Your task to perform on an android device: turn on data saver in the chrome app Image 0: 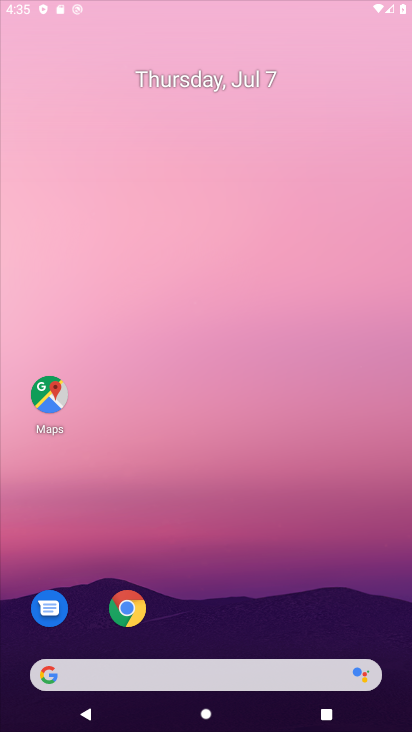
Step 0: press home button
Your task to perform on an android device: turn on data saver in the chrome app Image 1: 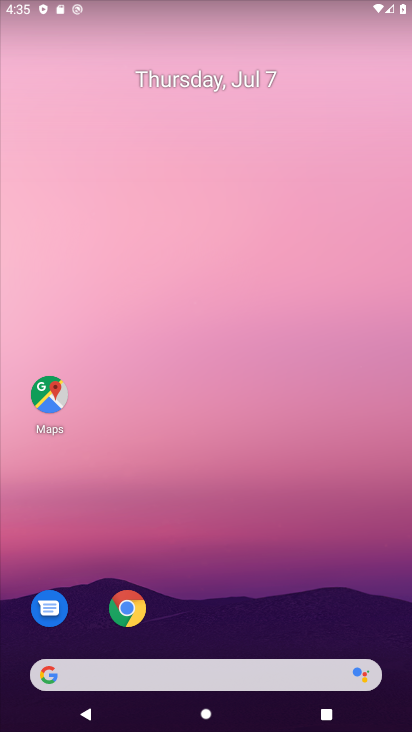
Step 1: press home button
Your task to perform on an android device: turn on data saver in the chrome app Image 2: 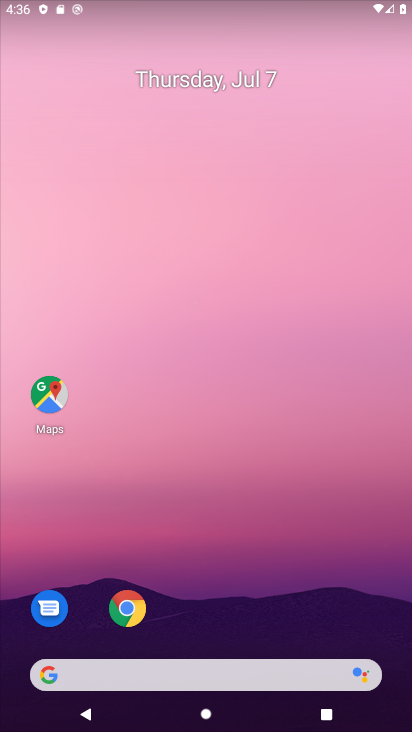
Step 2: click (126, 603)
Your task to perform on an android device: turn on data saver in the chrome app Image 3: 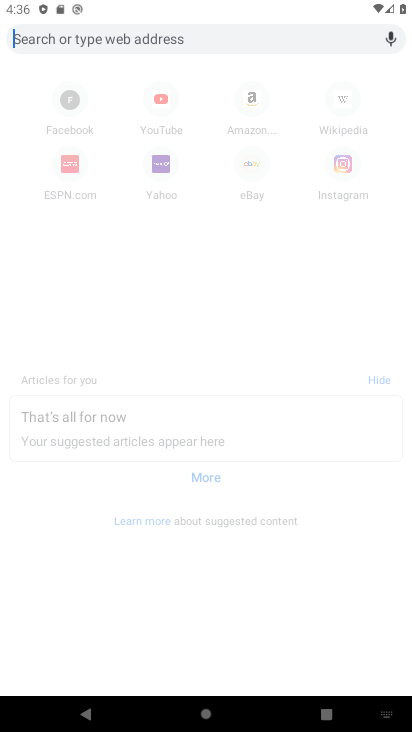
Step 3: click (249, 213)
Your task to perform on an android device: turn on data saver in the chrome app Image 4: 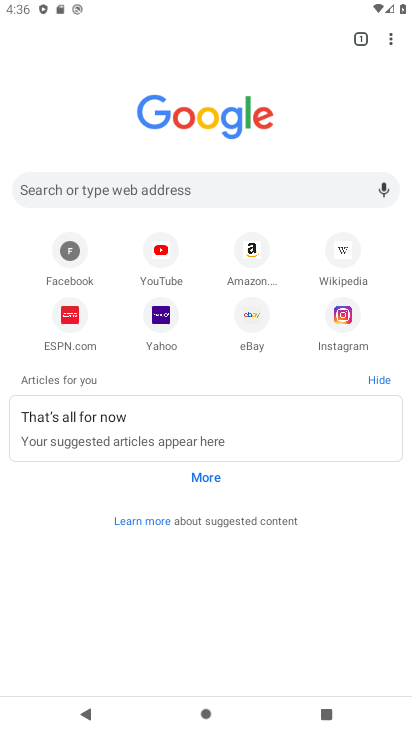
Step 4: click (390, 34)
Your task to perform on an android device: turn on data saver in the chrome app Image 5: 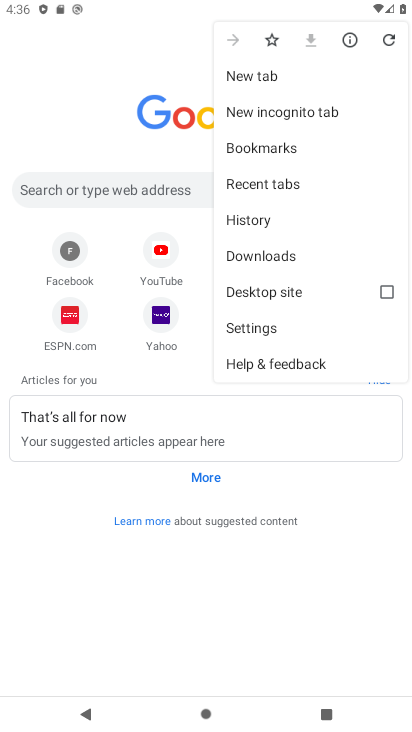
Step 5: click (276, 327)
Your task to perform on an android device: turn on data saver in the chrome app Image 6: 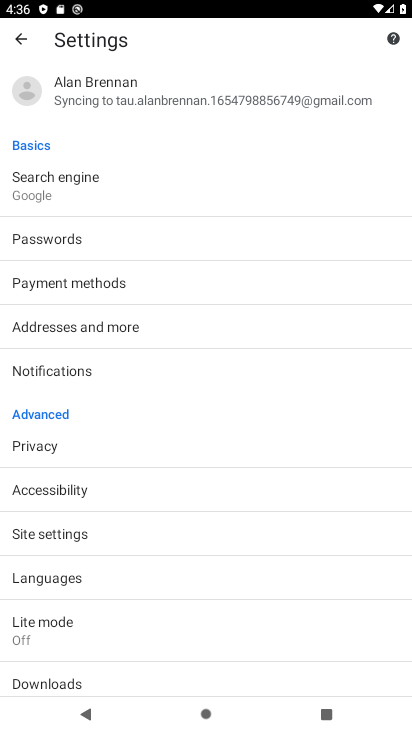
Step 6: click (89, 632)
Your task to perform on an android device: turn on data saver in the chrome app Image 7: 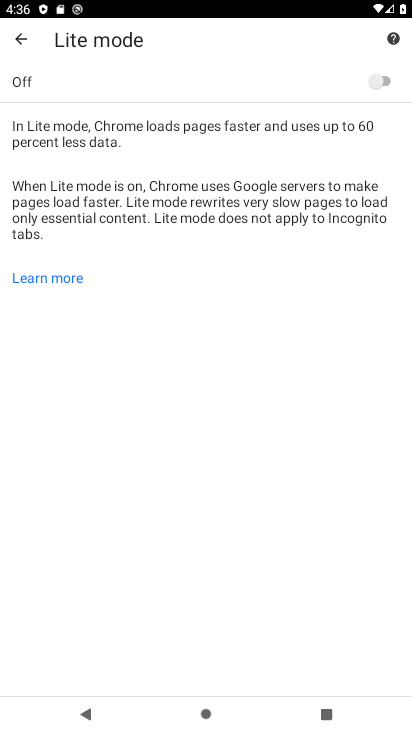
Step 7: click (384, 77)
Your task to perform on an android device: turn on data saver in the chrome app Image 8: 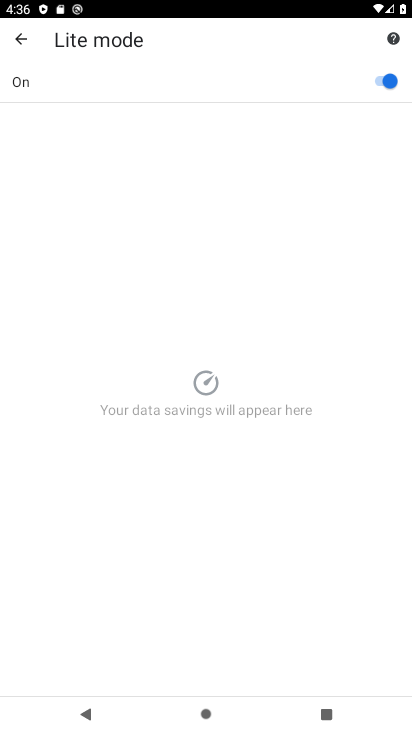
Step 8: task complete